Your task to perform on an android device: Turn on the flashlight Image 0: 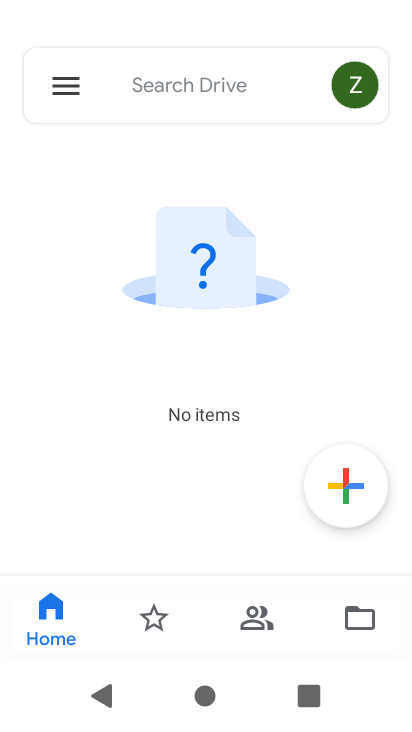
Step 0: drag from (307, 1) to (362, 466)
Your task to perform on an android device: Turn on the flashlight Image 1: 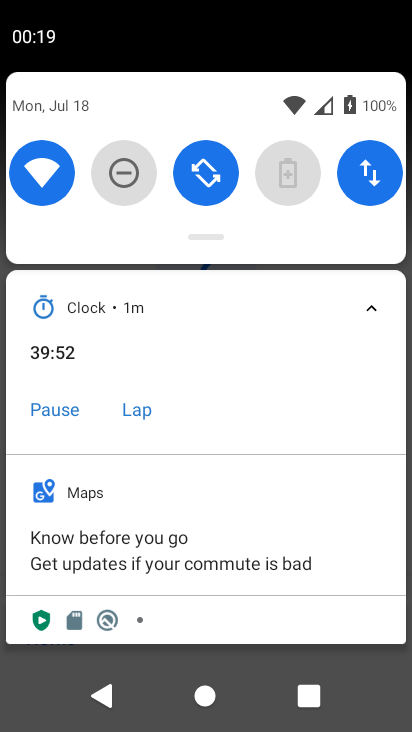
Step 1: task complete